Your task to perform on an android device: Show me the alarms in the clock app Image 0: 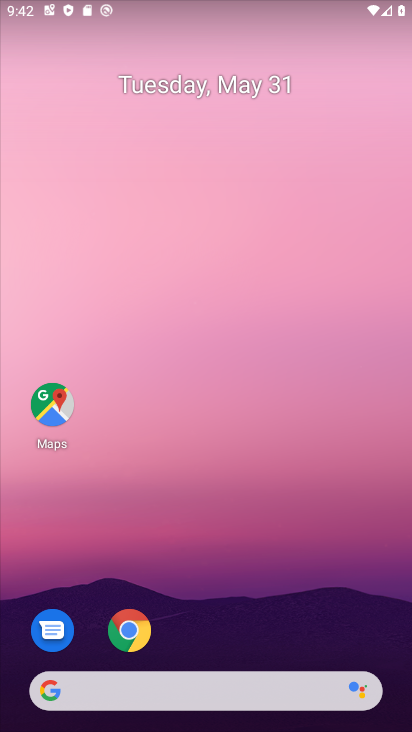
Step 0: drag from (199, 656) to (213, 206)
Your task to perform on an android device: Show me the alarms in the clock app Image 1: 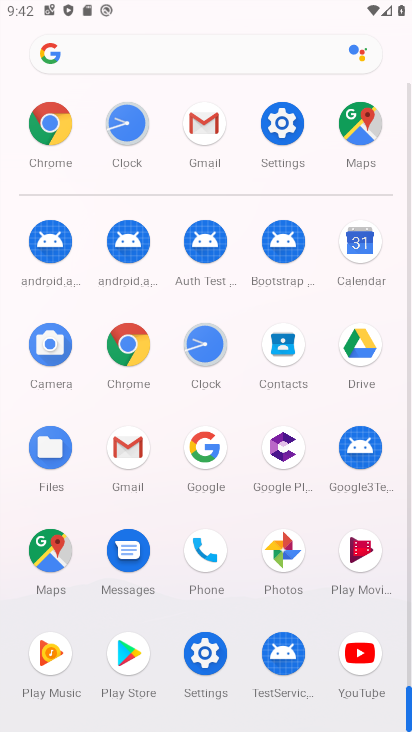
Step 1: drag from (216, 489) to (222, 220)
Your task to perform on an android device: Show me the alarms in the clock app Image 2: 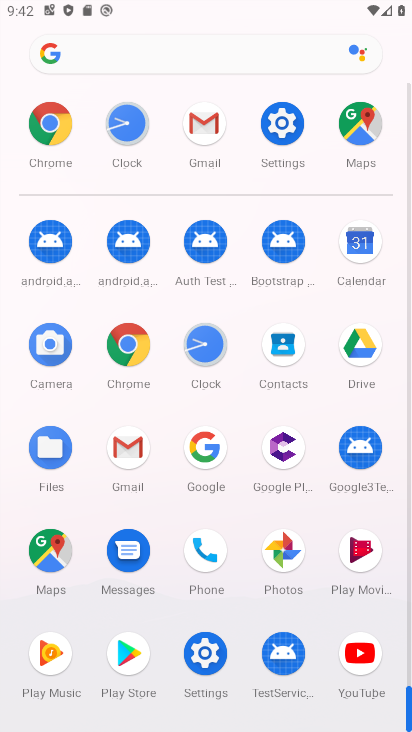
Step 2: click (209, 359)
Your task to perform on an android device: Show me the alarms in the clock app Image 3: 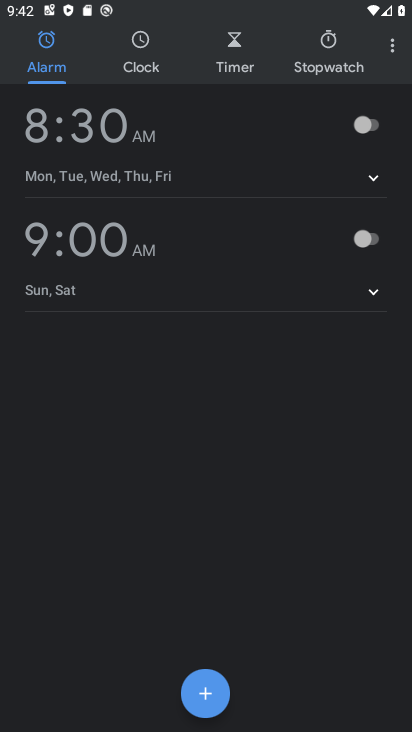
Step 3: task complete